Your task to perform on an android device: Go to eBay Image 0: 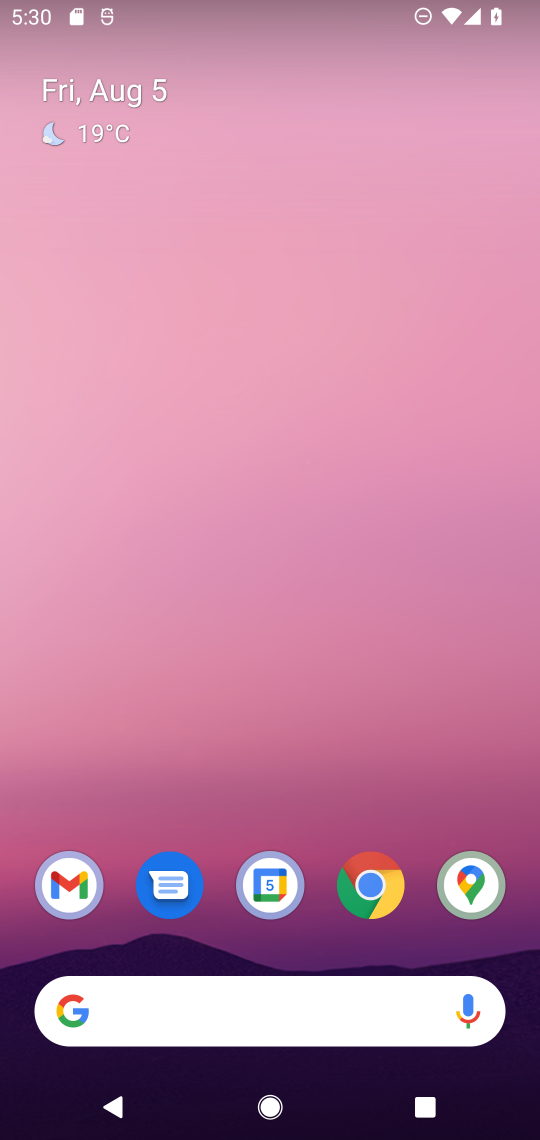
Step 0: click (370, 889)
Your task to perform on an android device: Go to eBay Image 1: 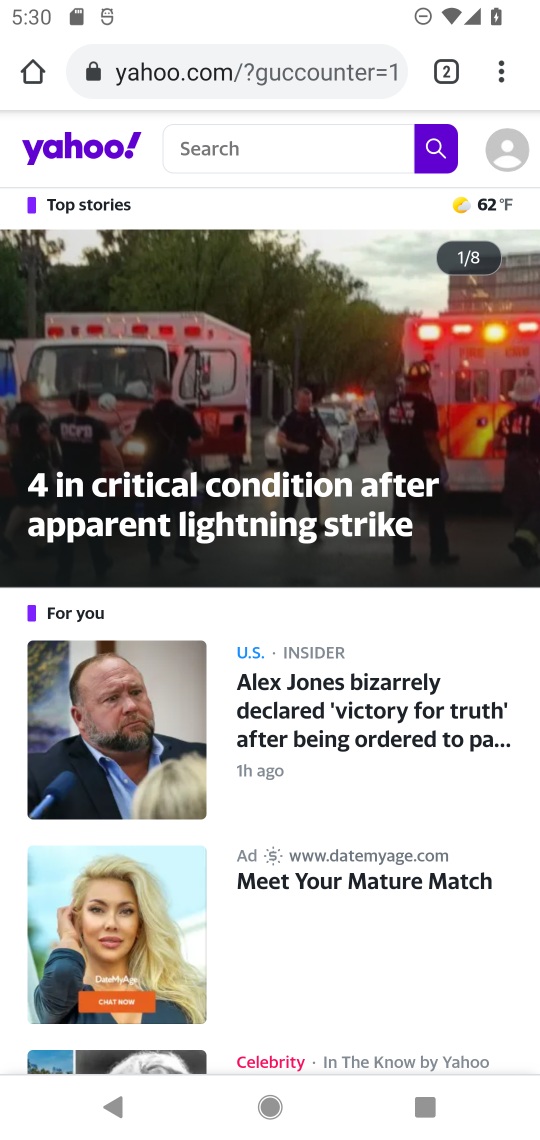
Step 1: click (505, 78)
Your task to perform on an android device: Go to eBay Image 2: 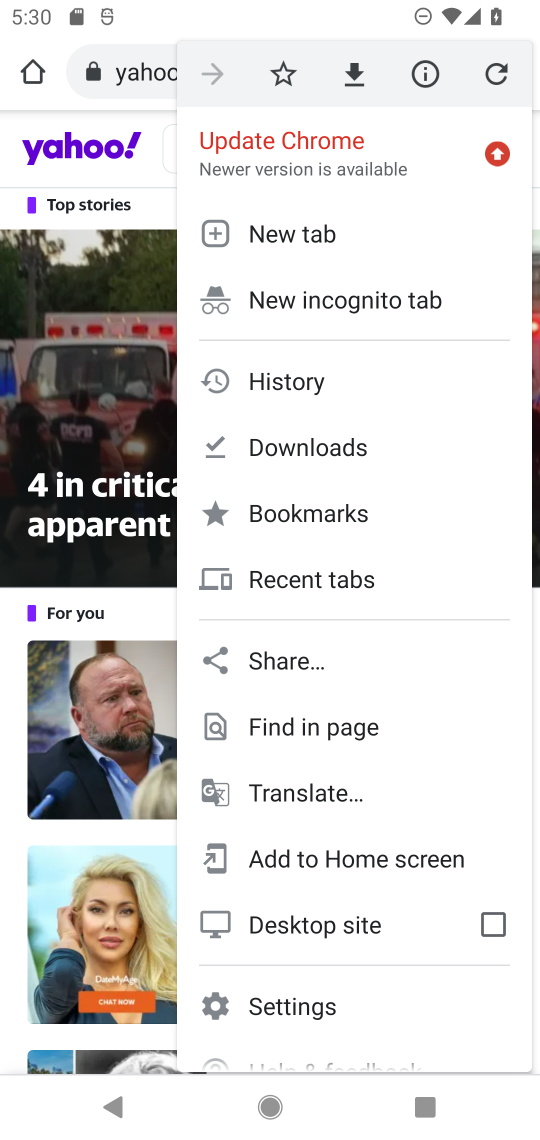
Step 2: click (282, 231)
Your task to perform on an android device: Go to eBay Image 3: 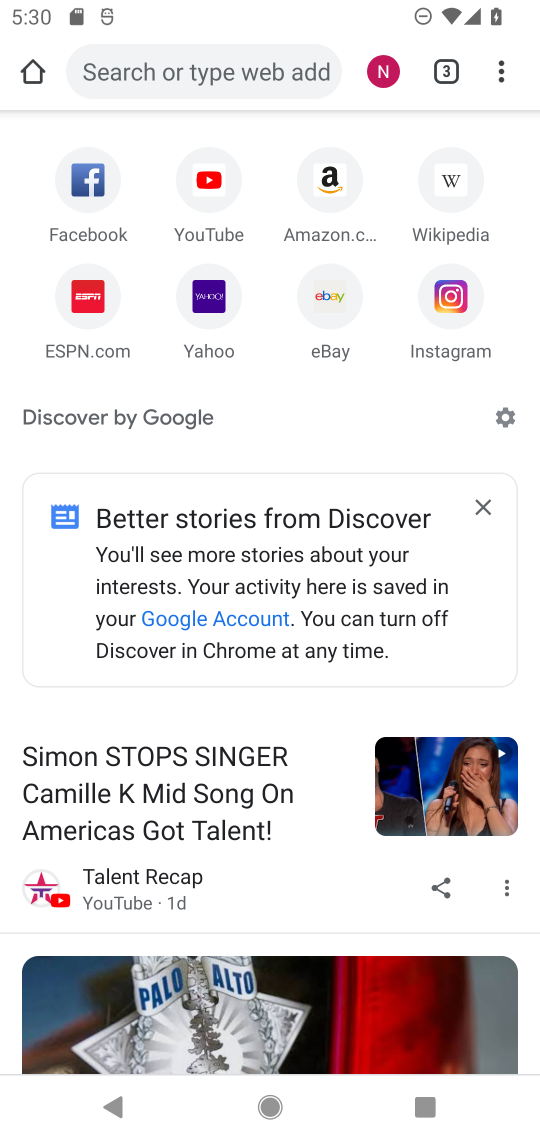
Step 3: click (333, 310)
Your task to perform on an android device: Go to eBay Image 4: 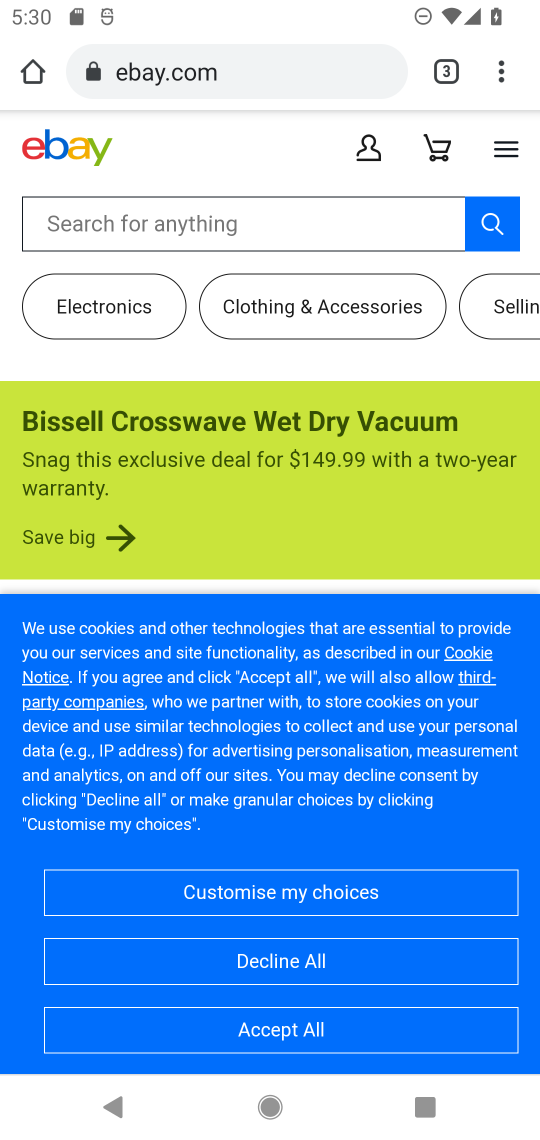
Step 4: task complete